Your task to perform on an android device: Open Google Chrome and click the shortcut for Amazon.com Image 0: 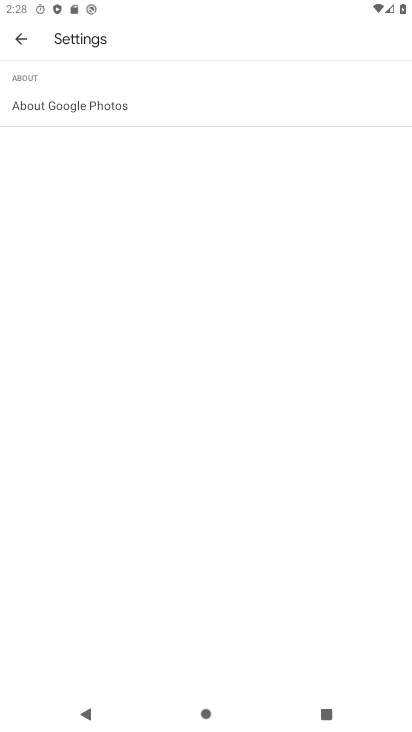
Step 0: press home button
Your task to perform on an android device: Open Google Chrome and click the shortcut for Amazon.com Image 1: 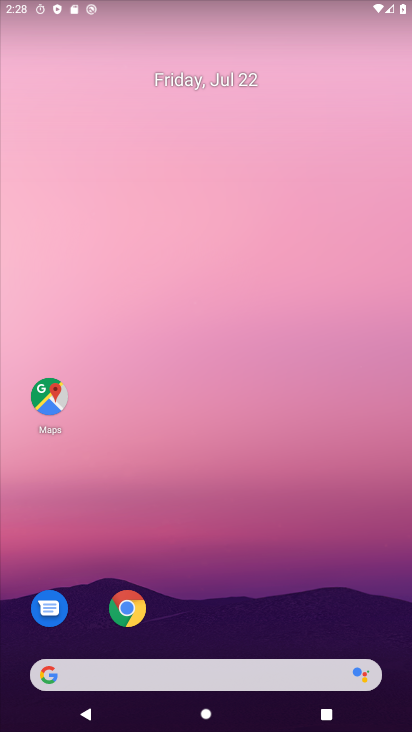
Step 1: drag from (177, 652) to (159, 240)
Your task to perform on an android device: Open Google Chrome and click the shortcut for Amazon.com Image 2: 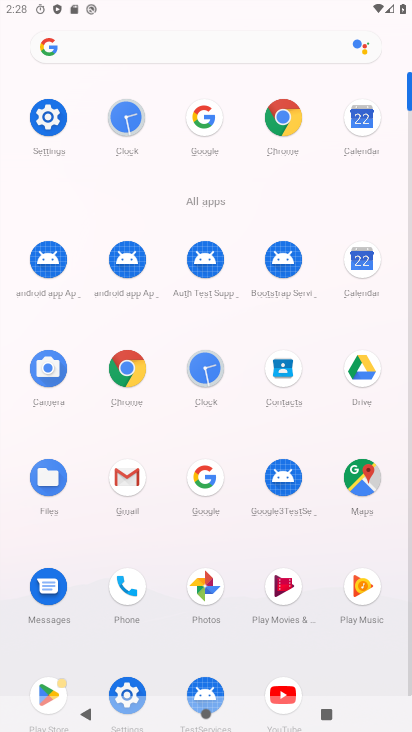
Step 2: drag from (155, 644) to (131, 335)
Your task to perform on an android device: Open Google Chrome and click the shortcut for Amazon.com Image 3: 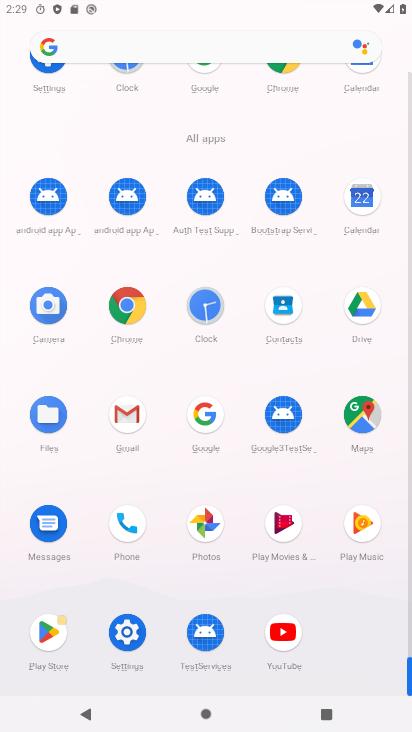
Step 3: click (126, 299)
Your task to perform on an android device: Open Google Chrome and click the shortcut for Amazon.com Image 4: 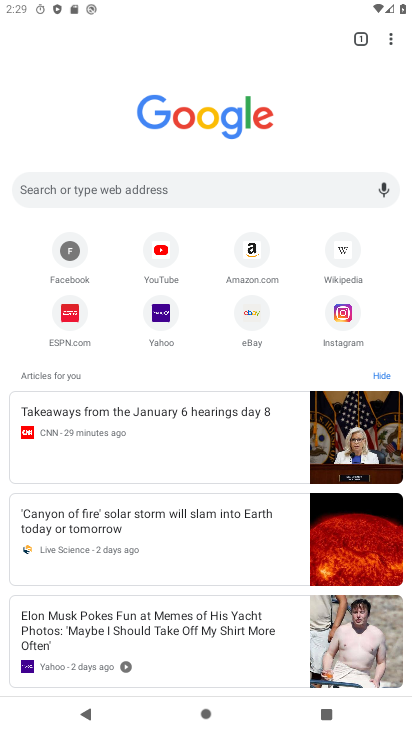
Step 4: click (248, 243)
Your task to perform on an android device: Open Google Chrome and click the shortcut for Amazon.com Image 5: 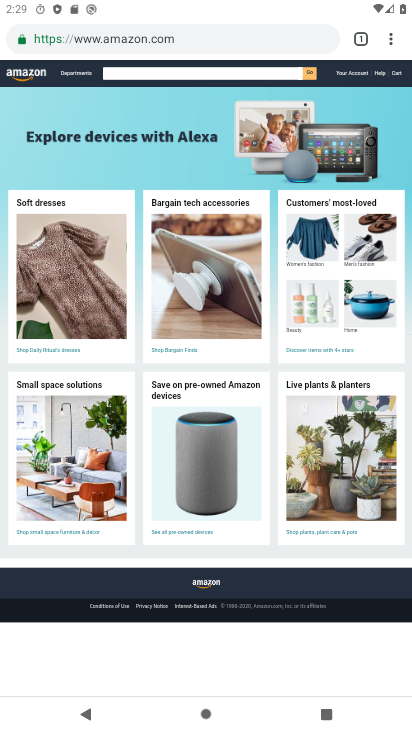
Step 5: task complete